Your task to perform on an android device: Open sound settings Image 0: 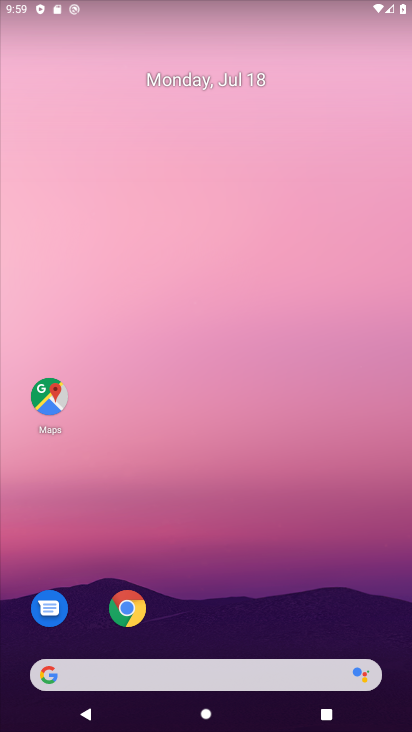
Step 0: drag from (229, 628) to (174, 457)
Your task to perform on an android device: Open sound settings Image 1: 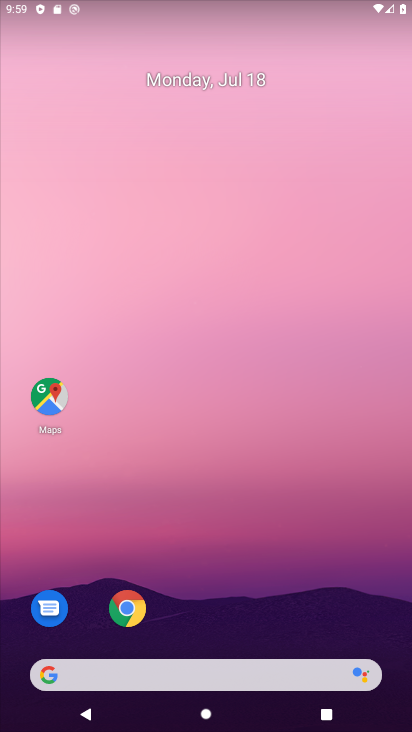
Step 1: drag from (249, 683) to (194, 531)
Your task to perform on an android device: Open sound settings Image 2: 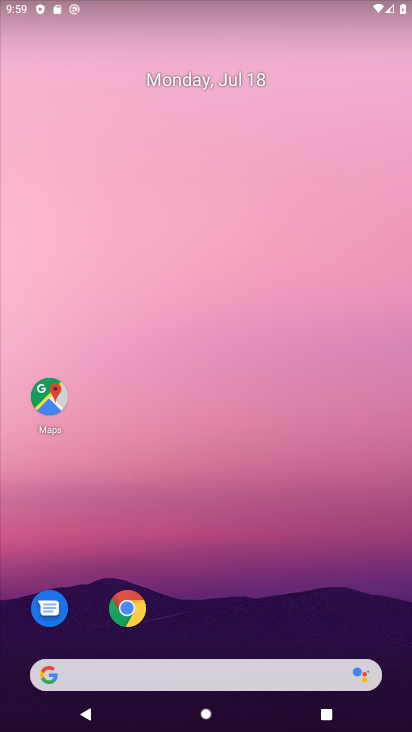
Step 2: drag from (219, 545) to (215, 456)
Your task to perform on an android device: Open sound settings Image 3: 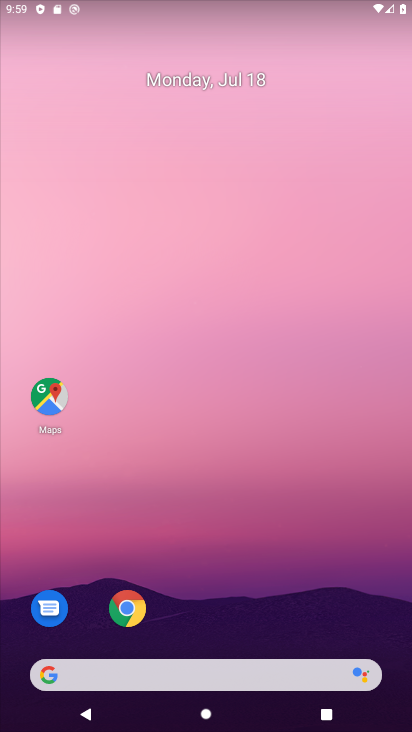
Step 3: drag from (246, 577) to (223, 490)
Your task to perform on an android device: Open sound settings Image 4: 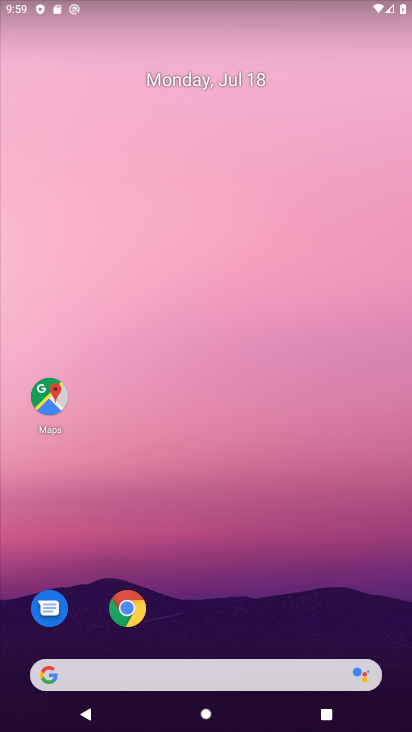
Step 4: drag from (203, 457) to (134, 151)
Your task to perform on an android device: Open sound settings Image 5: 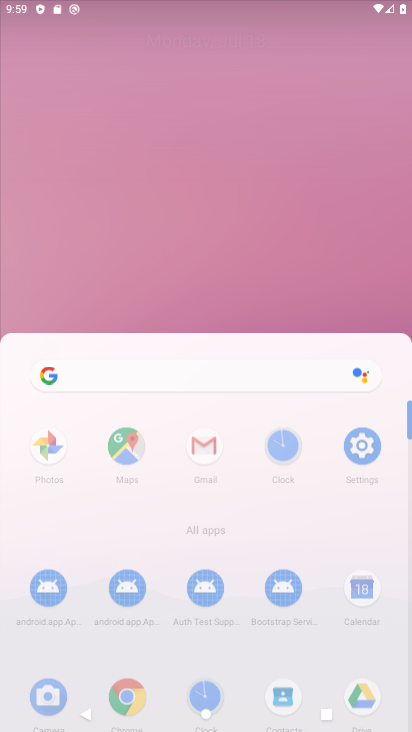
Step 5: drag from (255, 718) to (192, 194)
Your task to perform on an android device: Open sound settings Image 6: 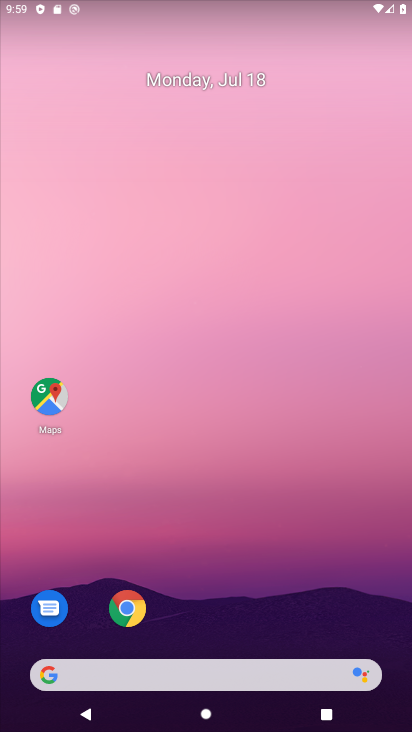
Step 6: drag from (275, 552) to (154, 136)
Your task to perform on an android device: Open sound settings Image 7: 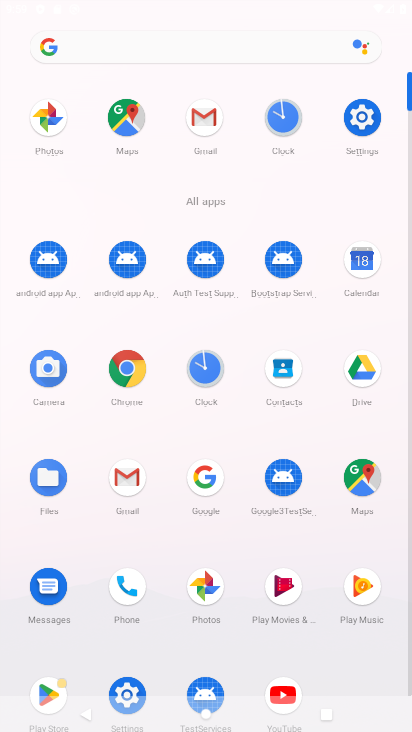
Step 7: drag from (180, 326) to (145, 100)
Your task to perform on an android device: Open sound settings Image 8: 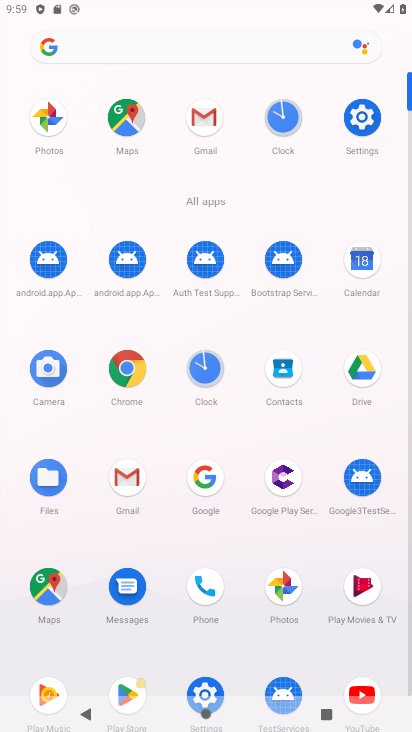
Step 8: click (368, 123)
Your task to perform on an android device: Open sound settings Image 9: 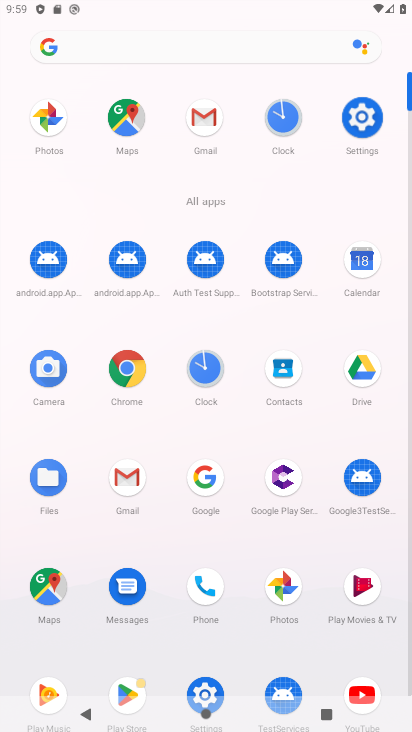
Step 9: click (366, 123)
Your task to perform on an android device: Open sound settings Image 10: 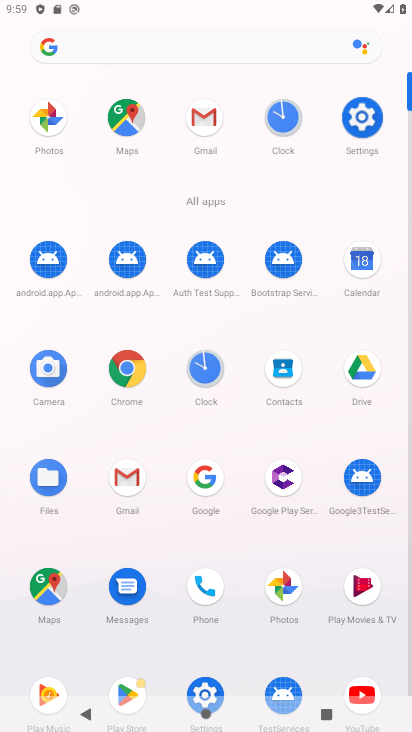
Step 10: click (366, 123)
Your task to perform on an android device: Open sound settings Image 11: 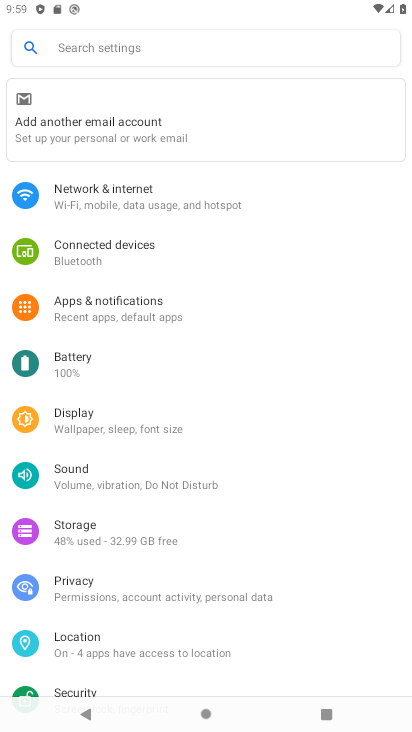
Step 11: click (84, 479)
Your task to perform on an android device: Open sound settings Image 12: 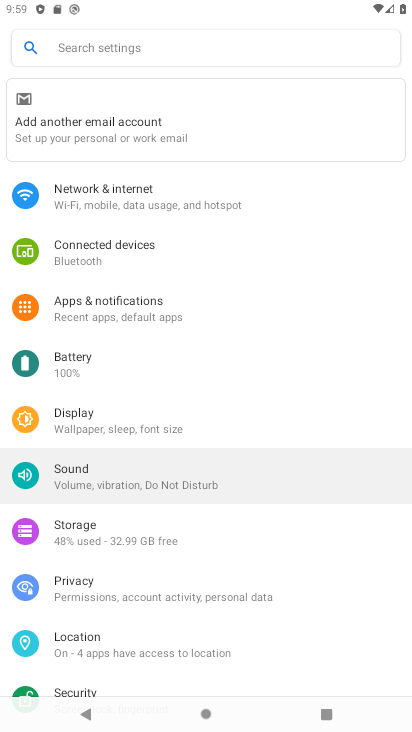
Step 12: click (63, 483)
Your task to perform on an android device: Open sound settings Image 13: 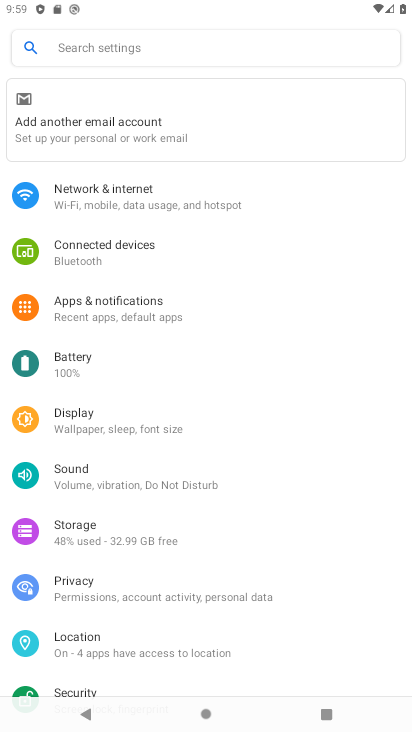
Step 13: click (144, 474)
Your task to perform on an android device: Open sound settings Image 14: 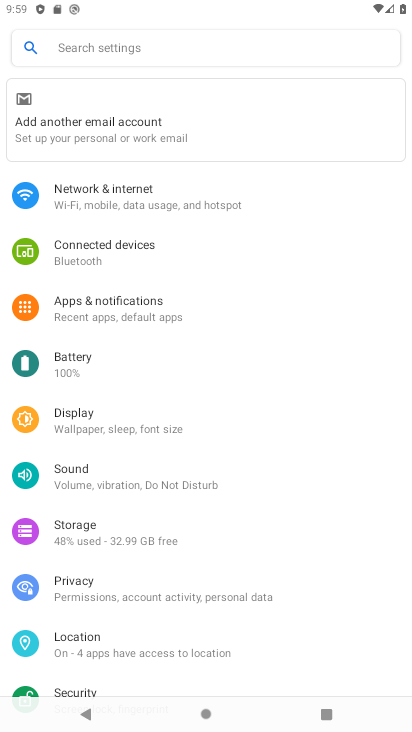
Step 14: click (138, 483)
Your task to perform on an android device: Open sound settings Image 15: 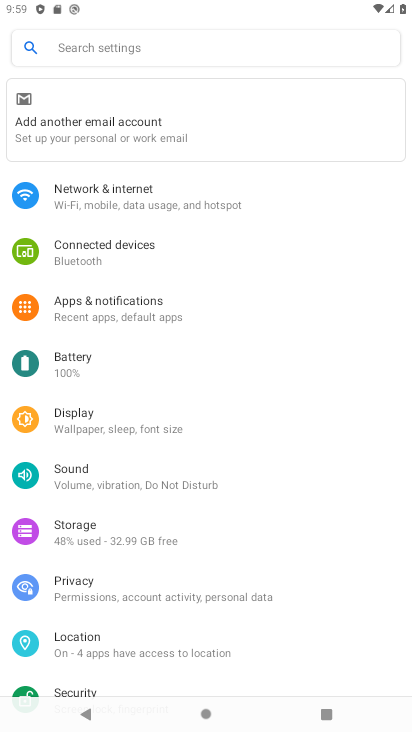
Step 15: click (138, 483)
Your task to perform on an android device: Open sound settings Image 16: 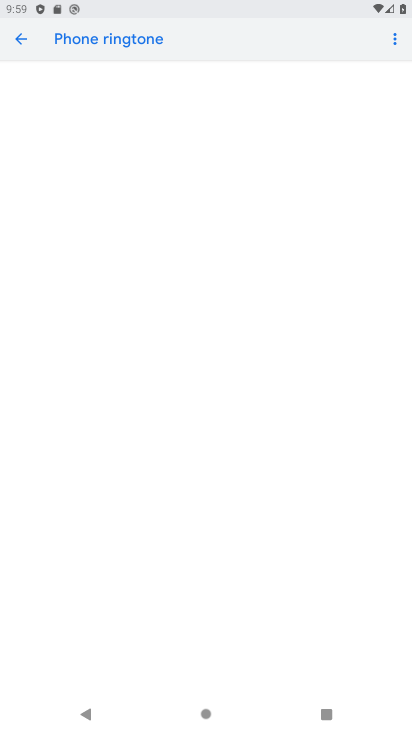
Step 16: task complete